Your task to perform on an android device: turn on sleep mode Image 0: 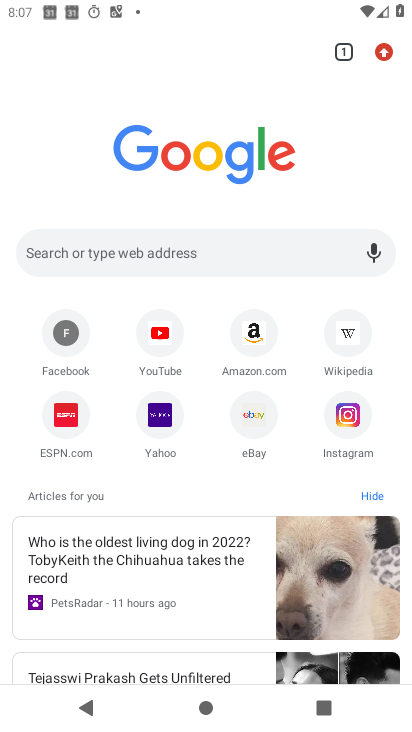
Step 0: press home button
Your task to perform on an android device: turn on sleep mode Image 1: 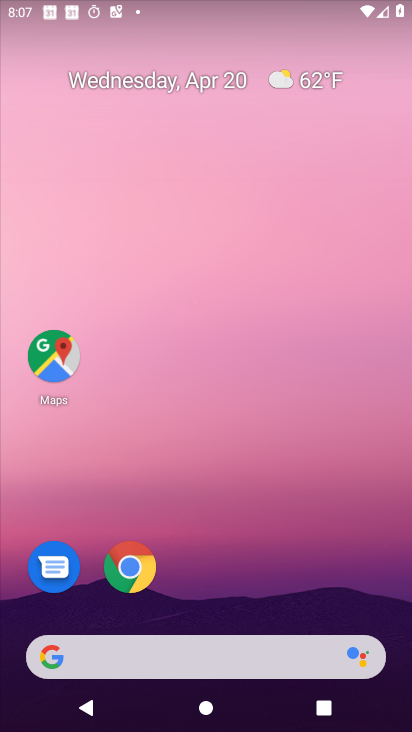
Step 1: drag from (235, 659) to (212, 197)
Your task to perform on an android device: turn on sleep mode Image 2: 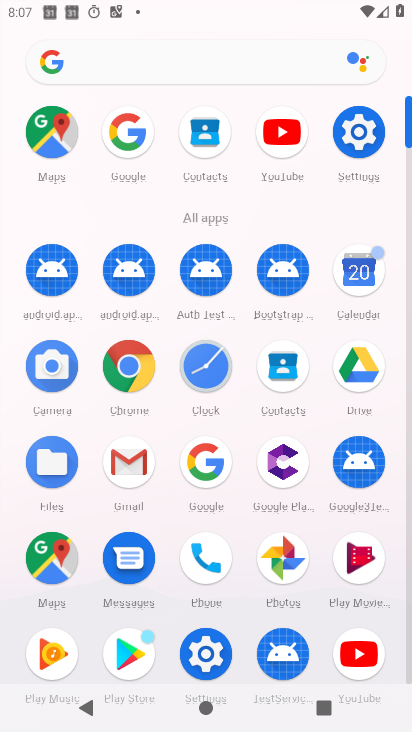
Step 2: click (214, 648)
Your task to perform on an android device: turn on sleep mode Image 3: 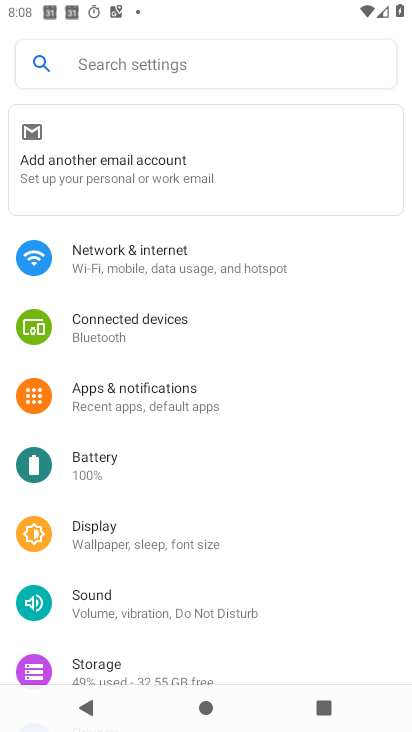
Step 3: click (125, 537)
Your task to perform on an android device: turn on sleep mode Image 4: 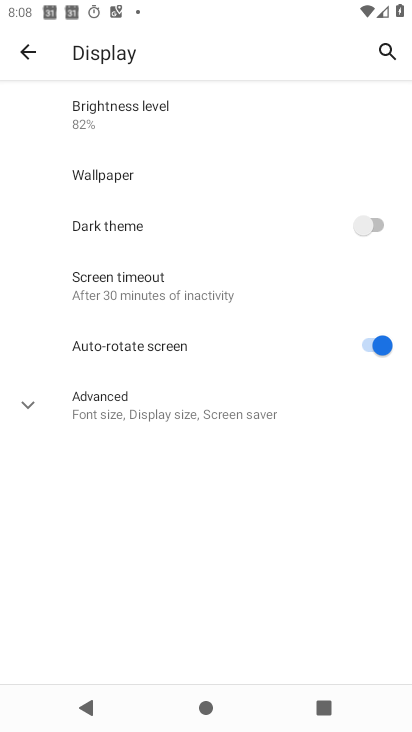
Step 4: click (227, 410)
Your task to perform on an android device: turn on sleep mode Image 5: 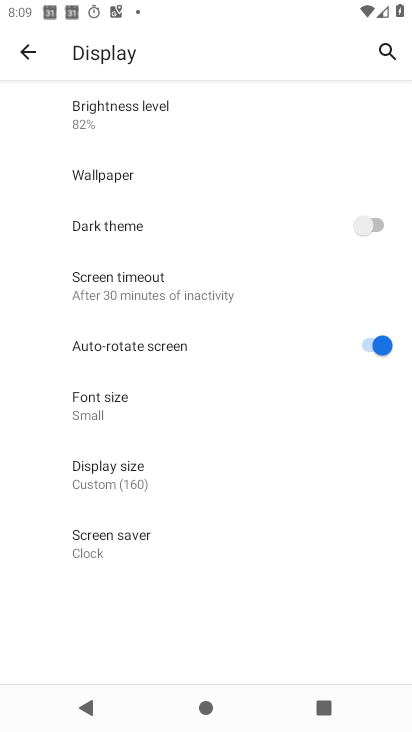
Step 5: task complete